Your task to perform on an android device: add a contact Image 0: 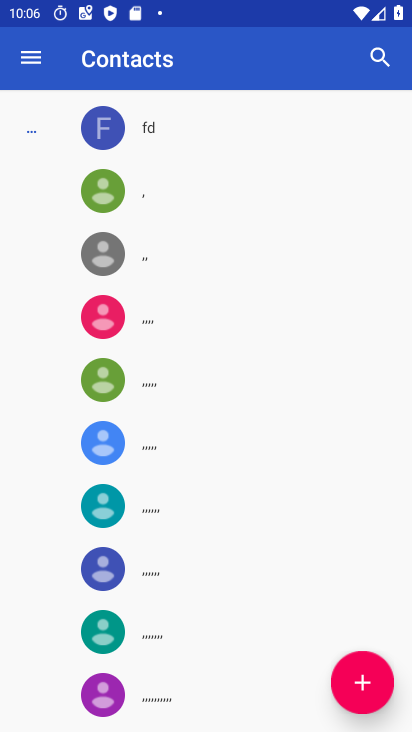
Step 0: click (369, 679)
Your task to perform on an android device: add a contact Image 1: 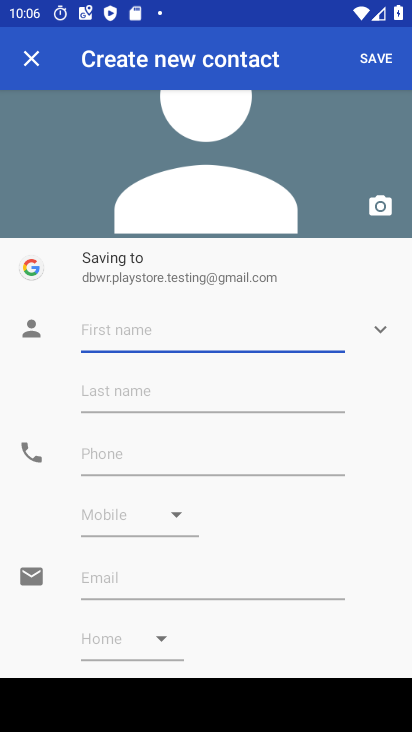
Step 1: type "footbthe bill"
Your task to perform on an android device: add a contact Image 2: 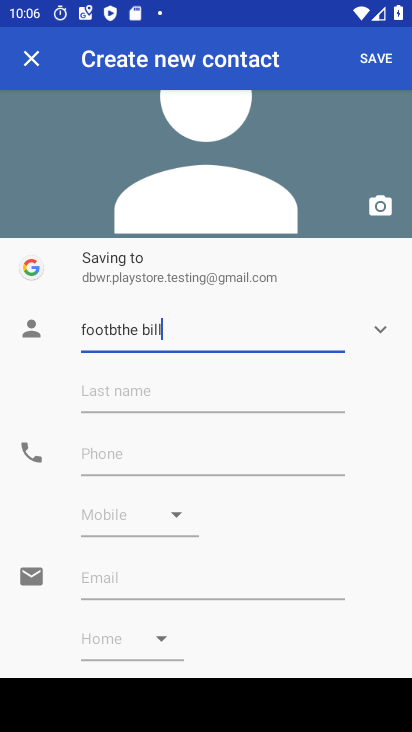
Step 2: click (124, 446)
Your task to perform on an android device: add a contact Image 3: 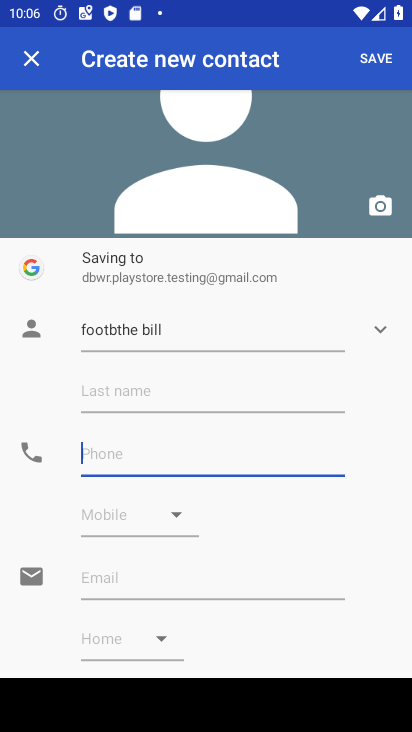
Step 3: type "0987654567"
Your task to perform on an android device: add a contact Image 4: 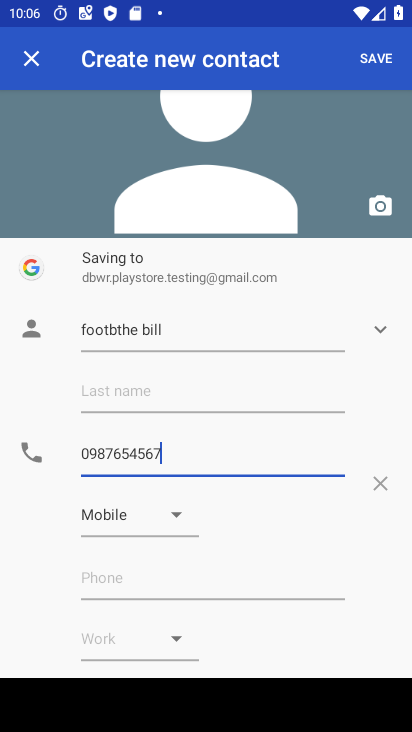
Step 4: click (387, 58)
Your task to perform on an android device: add a contact Image 5: 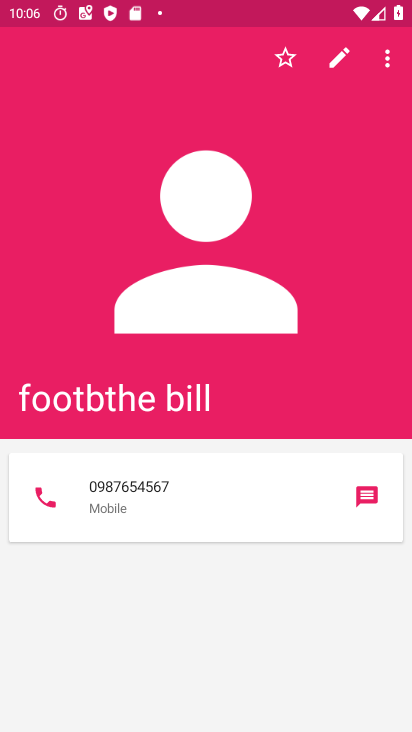
Step 5: task complete